Your task to perform on an android device: Open location settings Image 0: 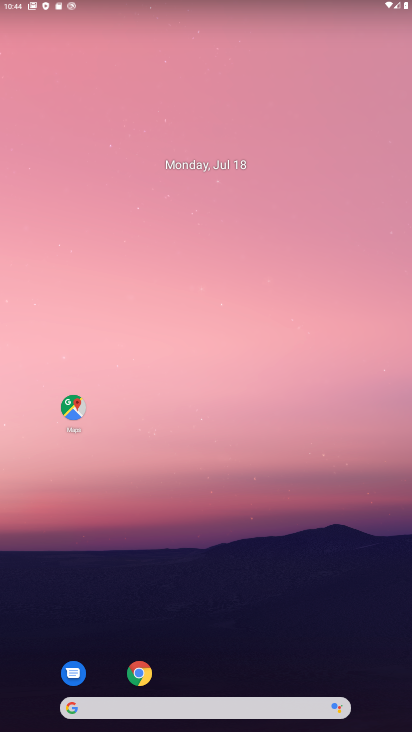
Step 0: click (231, 286)
Your task to perform on an android device: Open location settings Image 1: 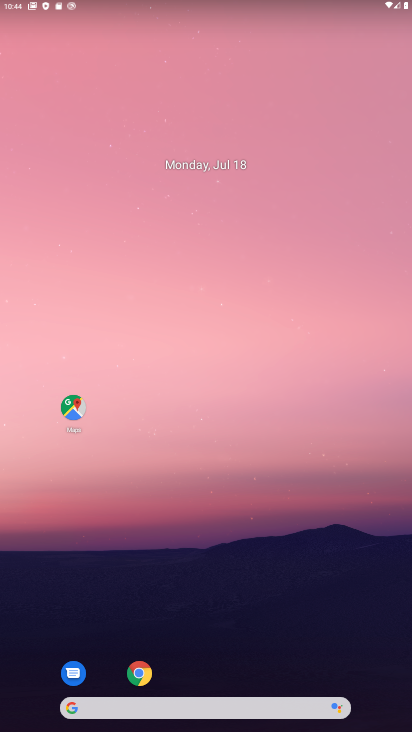
Step 1: drag from (205, 672) to (269, 158)
Your task to perform on an android device: Open location settings Image 2: 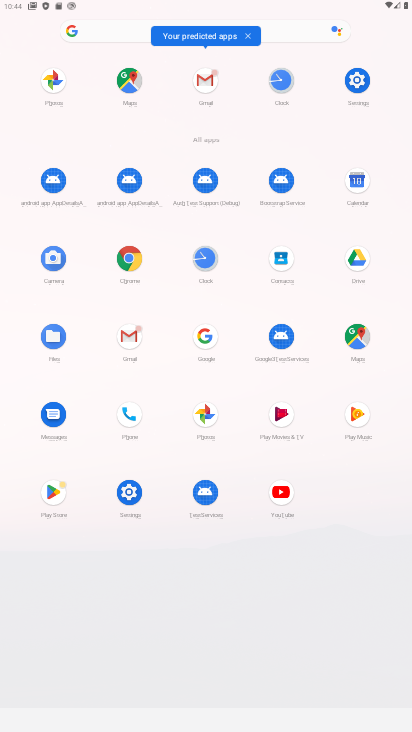
Step 2: click (146, 493)
Your task to perform on an android device: Open location settings Image 3: 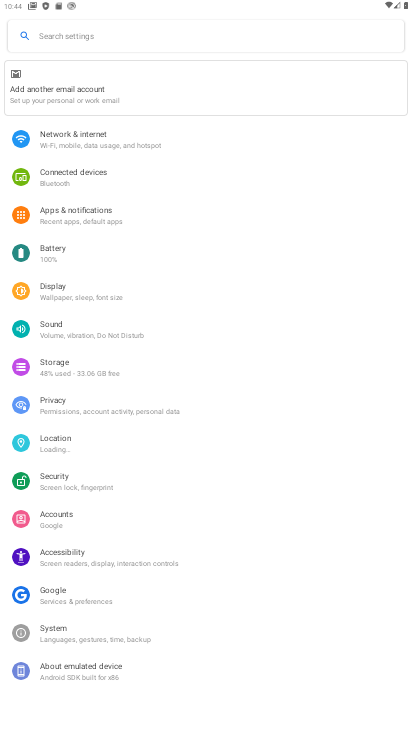
Step 3: click (87, 441)
Your task to perform on an android device: Open location settings Image 4: 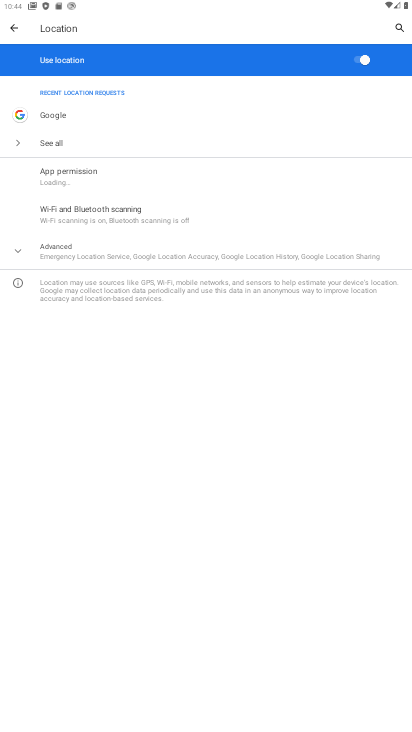
Step 4: task complete